Your task to perform on an android device: Open Google Maps and go to "Timeline" Image 0: 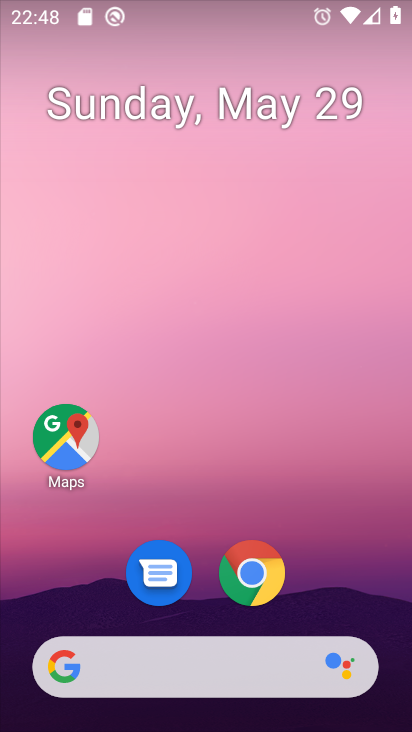
Step 0: click (75, 435)
Your task to perform on an android device: Open Google Maps and go to "Timeline" Image 1: 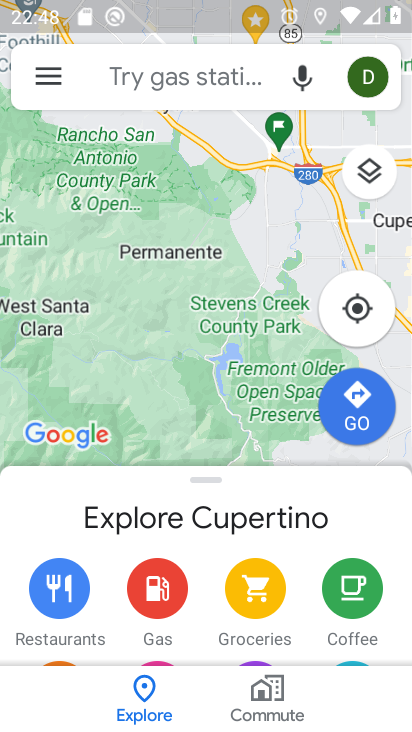
Step 1: click (52, 78)
Your task to perform on an android device: Open Google Maps and go to "Timeline" Image 2: 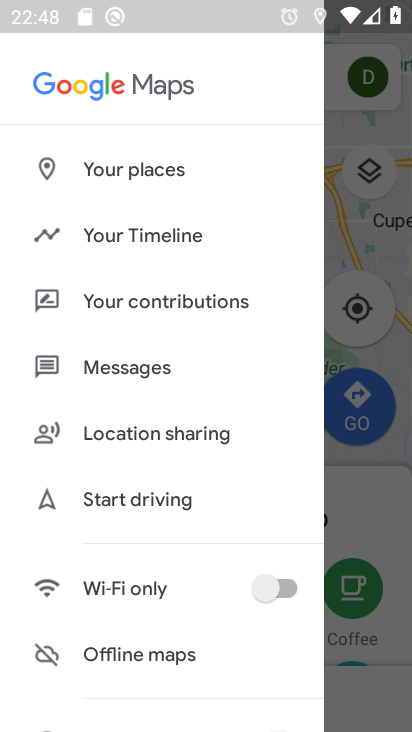
Step 2: click (128, 222)
Your task to perform on an android device: Open Google Maps and go to "Timeline" Image 3: 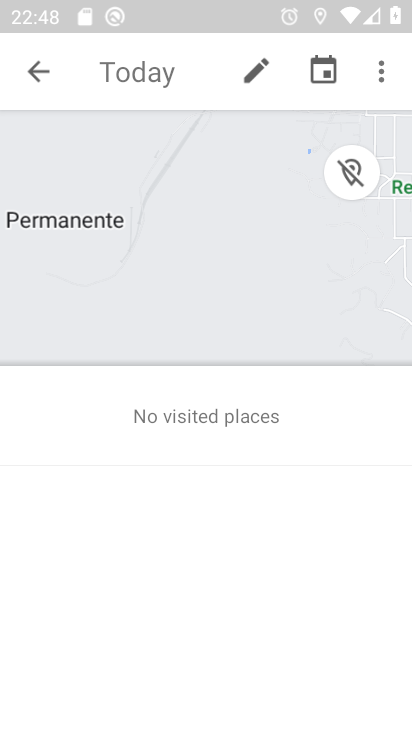
Step 3: task complete